Your task to perform on an android device: Search for Mexican restaurants on Maps Image 0: 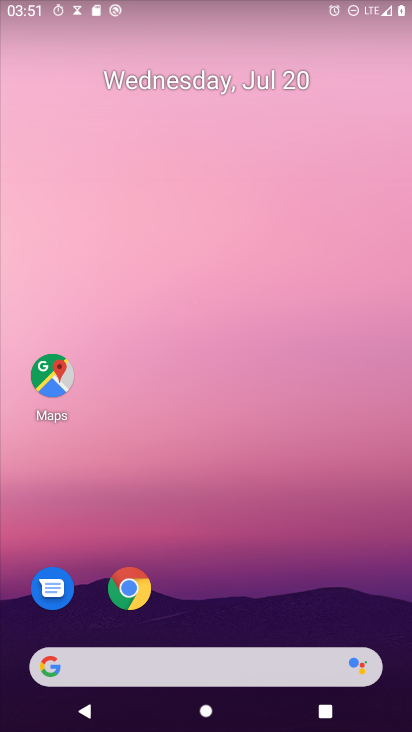
Step 0: drag from (222, 505) to (229, 86)
Your task to perform on an android device: Search for Mexican restaurants on Maps Image 1: 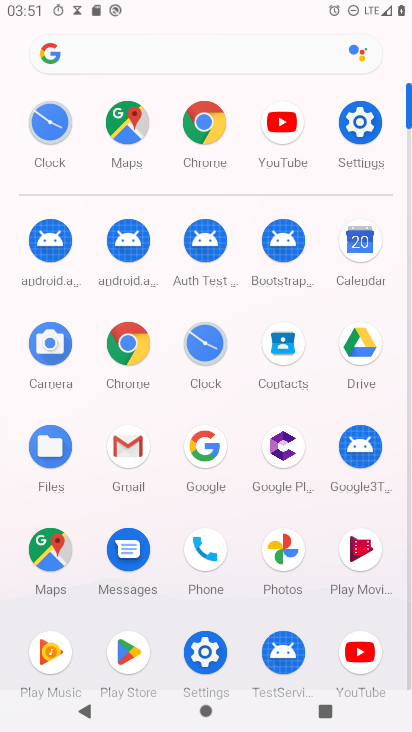
Step 1: click (53, 545)
Your task to perform on an android device: Search for Mexican restaurants on Maps Image 2: 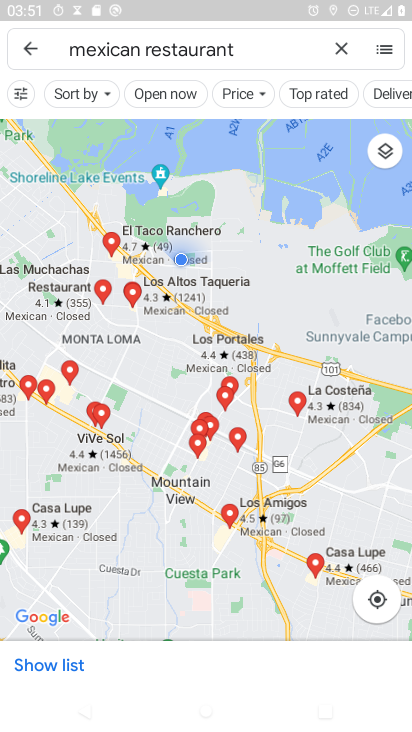
Step 2: task complete